Your task to perform on an android device: change the clock style Image 0: 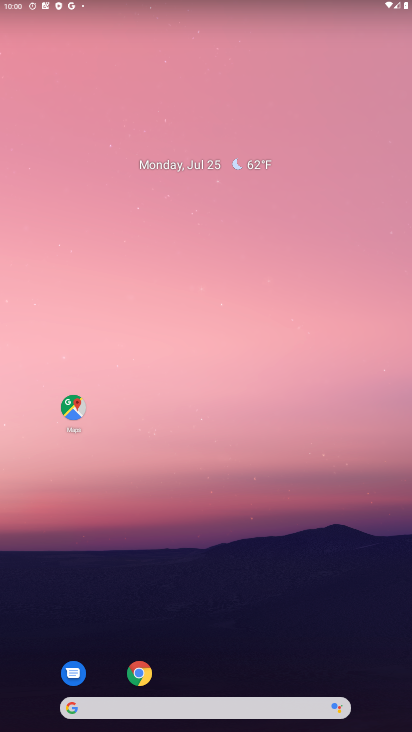
Step 0: drag from (157, 637) to (230, 24)
Your task to perform on an android device: change the clock style Image 1: 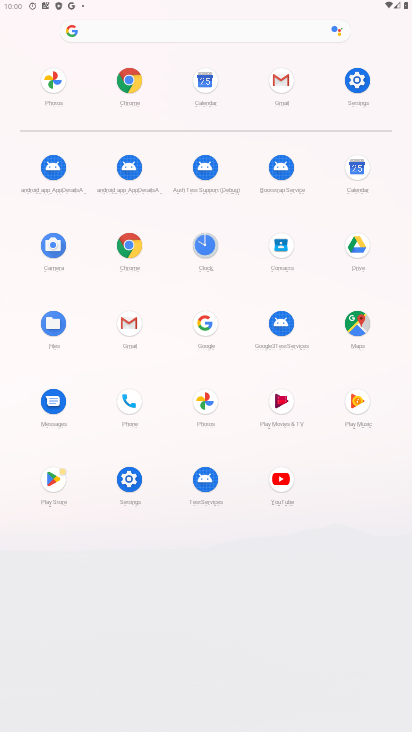
Step 1: click (179, 240)
Your task to perform on an android device: change the clock style Image 2: 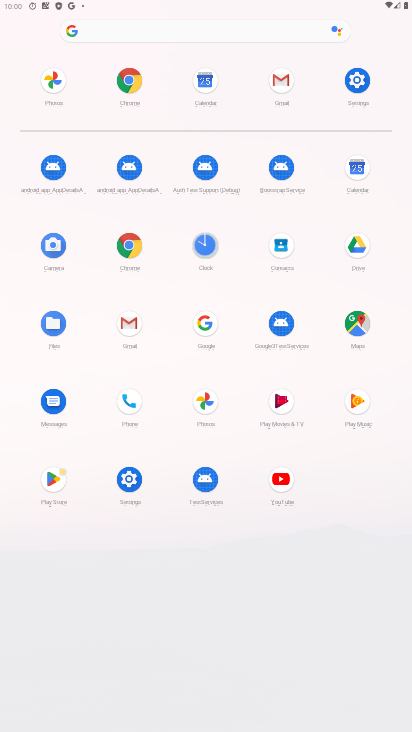
Step 2: click (191, 239)
Your task to perform on an android device: change the clock style Image 3: 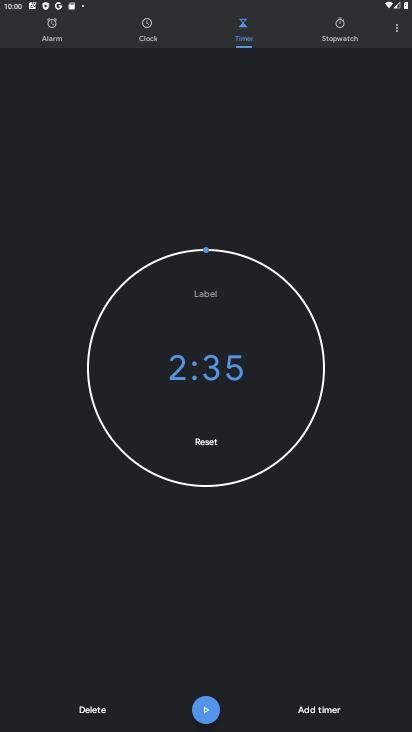
Step 3: drag from (214, 481) to (264, 122)
Your task to perform on an android device: change the clock style Image 4: 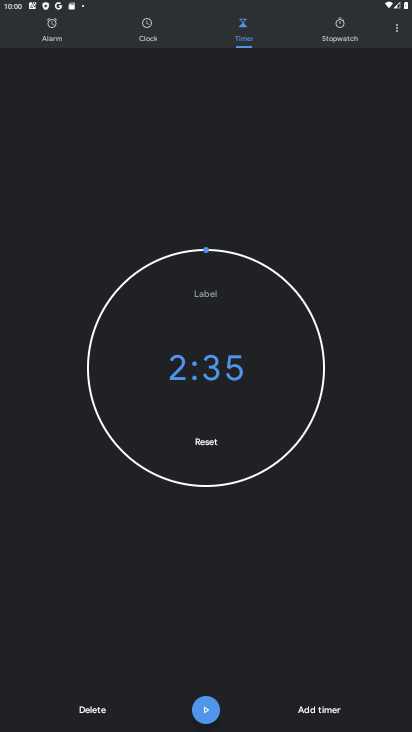
Step 4: drag from (177, 135) to (322, 151)
Your task to perform on an android device: change the clock style Image 5: 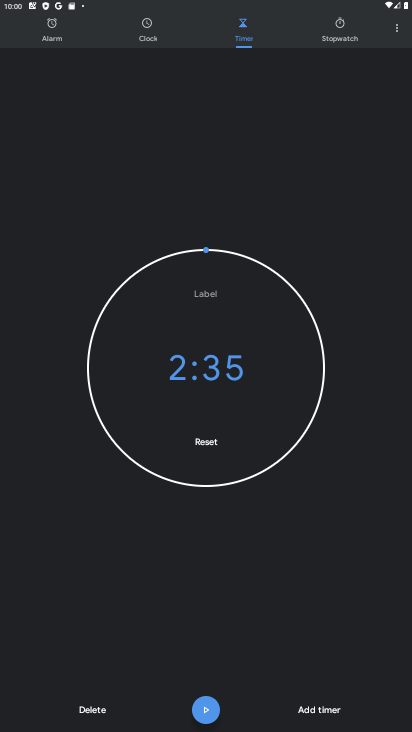
Step 5: drag from (399, 33) to (339, 53)
Your task to perform on an android device: change the clock style Image 6: 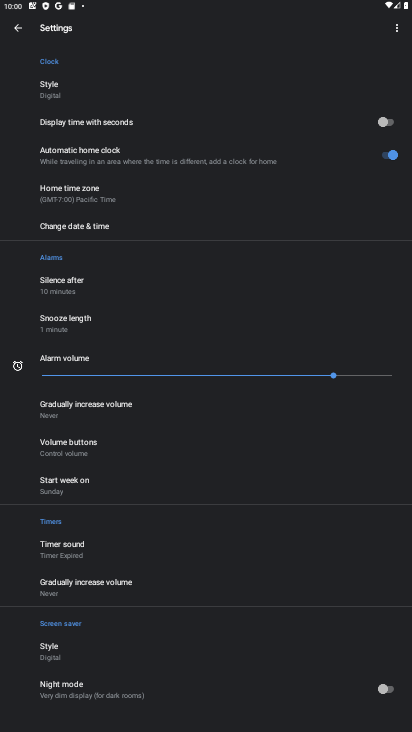
Step 6: click (85, 90)
Your task to perform on an android device: change the clock style Image 7: 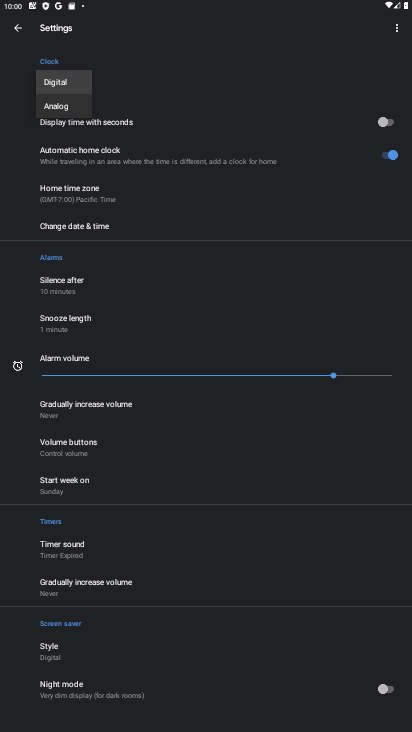
Step 7: click (62, 106)
Your task to perform on an android device: change the clock style Image 8: 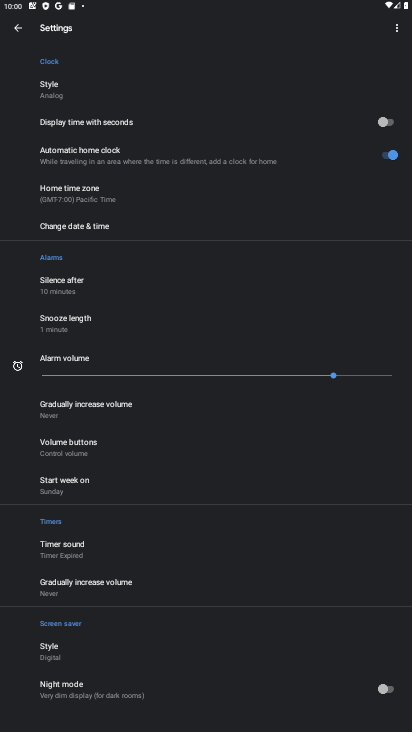
Step 8: task complete